Your task to perform on an android device: clear all cookies in the chrome app Image 0: 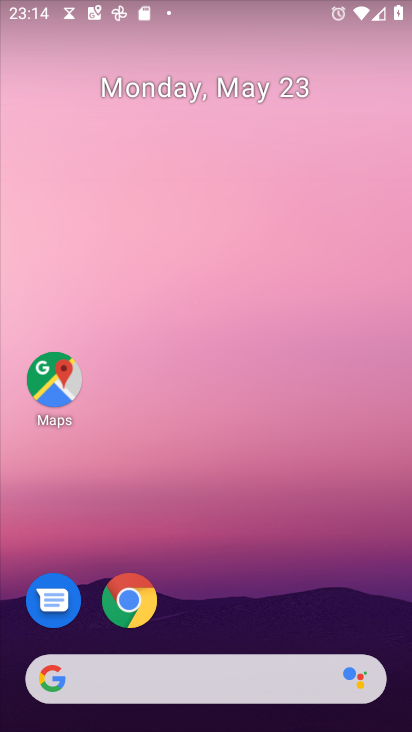
Step 0: click (126, 606)
Your task to perform on an android device: clear all cookies in the chrome app Image 1: 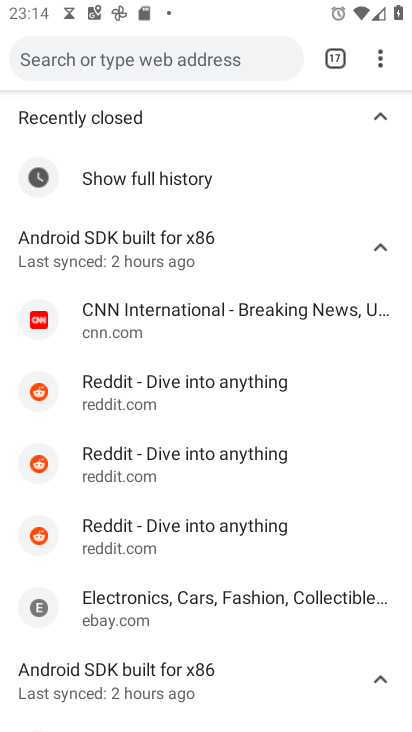
Step 1: click (381, 64)
Your task to perform on an android device: clear all cookies in the chrome app Image 2: 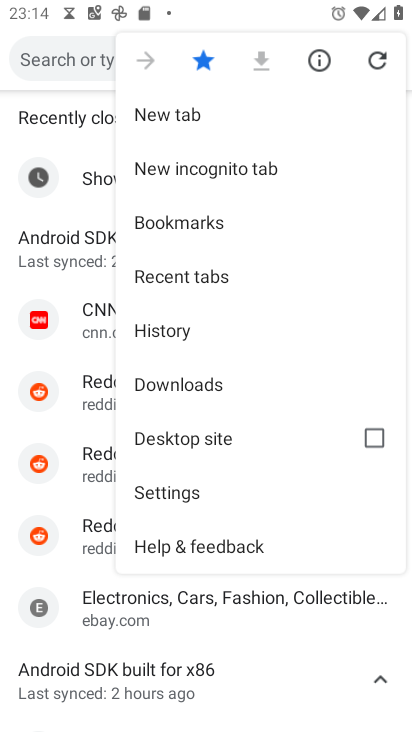
Step 2: click (175, 316)
Your task to perform on an android device: clear all cookies in the chrome app Image 3: 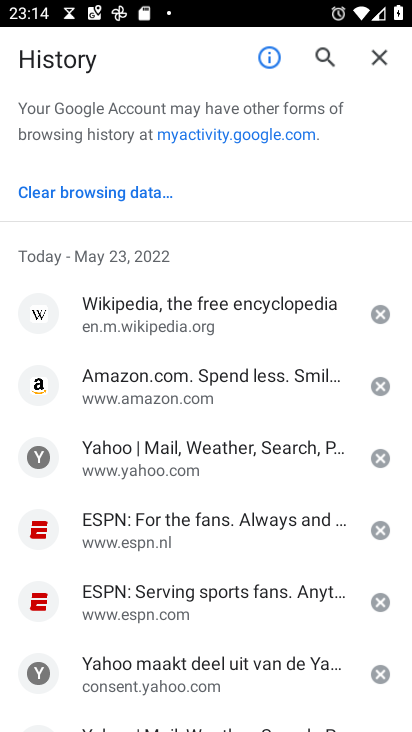
Step 3: click (101, 191)
Your task to perform on an android device: clear all cookies in the chrome app Image 4: 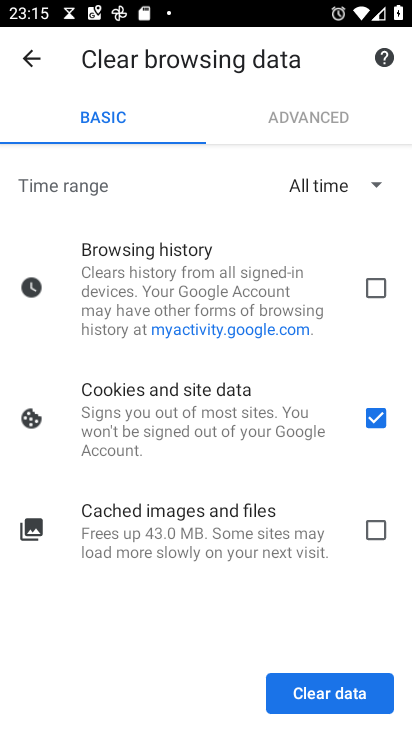
Step 4: click (332, 689)
Your task to perform on an android device: clear all cookies in the chrome app Image 5: 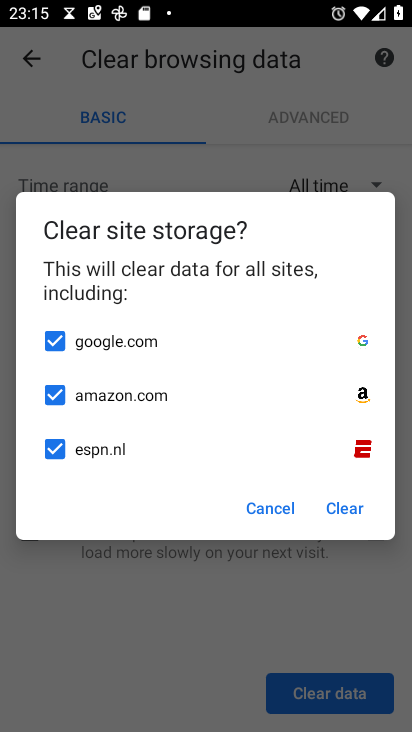
Step 5: click (343, 509)
Your task to perform on an android device: clear all cookies in the chrome app Image 6: 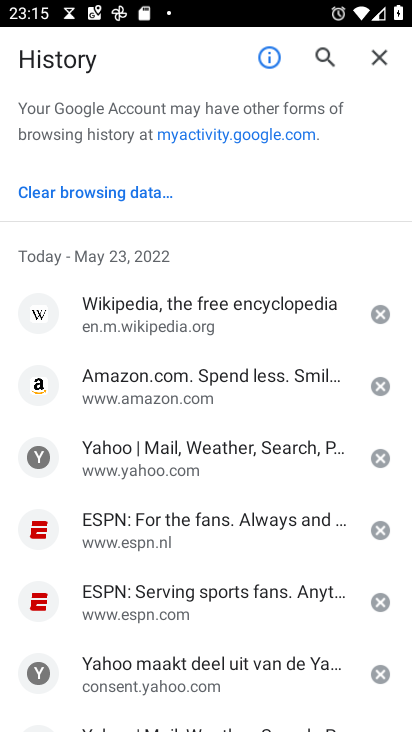
Step 6: task complete